Your task to perform on an android device: change text size in settings app Image 0: 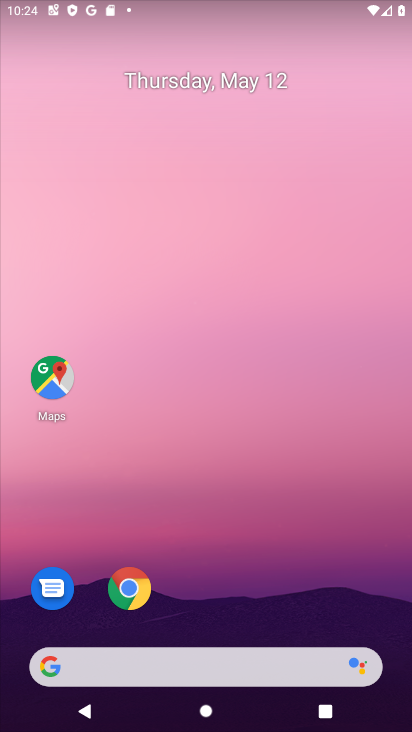
Step 0: click (188, 336)
Your task to perform on an android device: change text size in settings app Image 1: 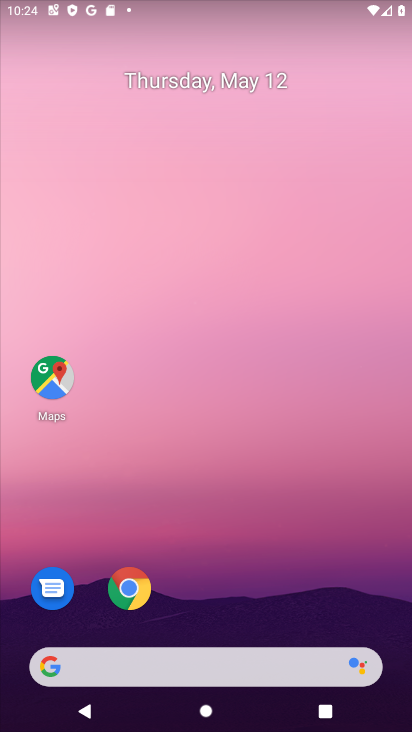
Step 1: click (214, 365)
Your task to perform on an android device: change text size in settings app Image 2: 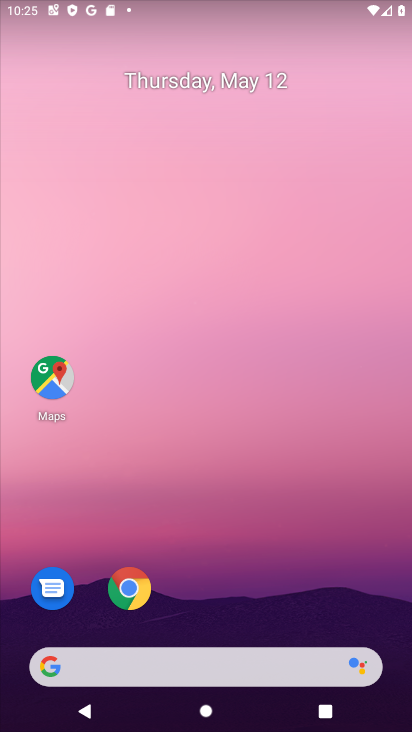
Step 2: drag from (213, 440) to (225, 147)
Your task to perform on an android device: change text size in settings app Image 3: 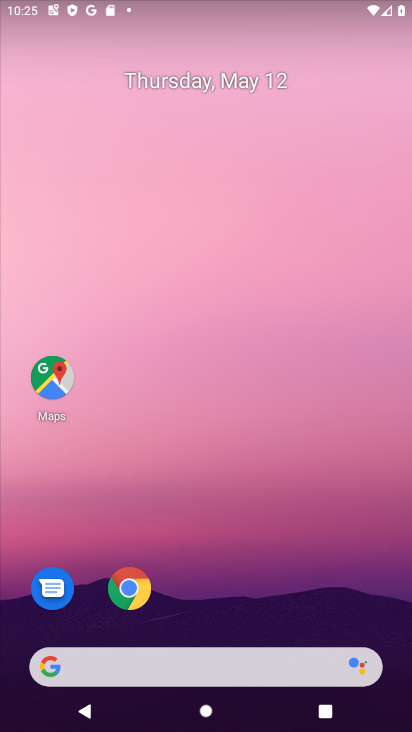
Step 3: drag from (181, 654) to (188, 88)
Your task to perform on an android device: change text size in settings app Image 4: 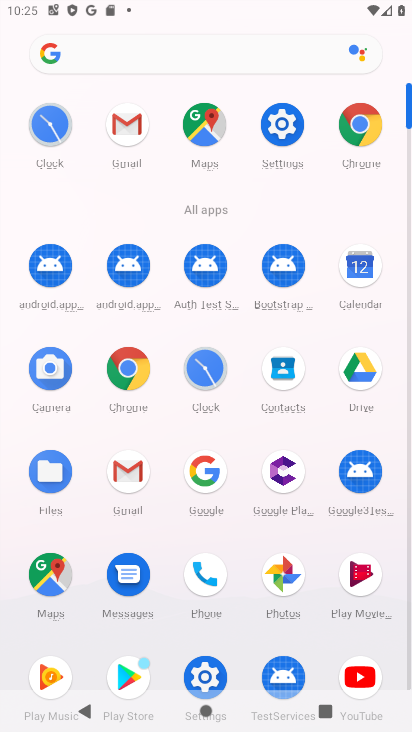
Step 4: click (277, 123)
Your task to perform on an android device: change text size in settings app Image 5: 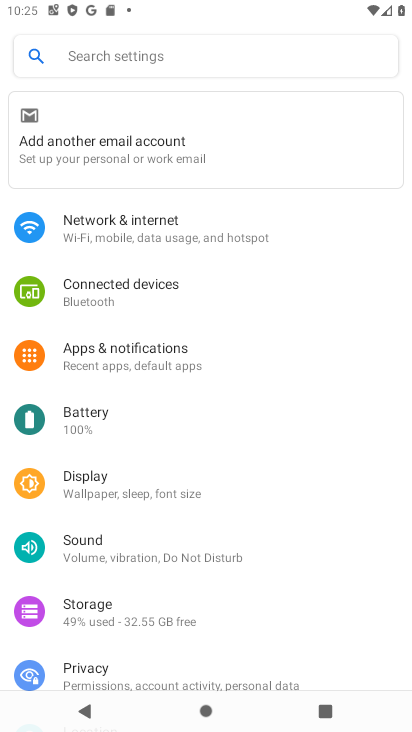
Step 5: drag from (117, 660) to (211, 156)
Your task to perform on an android device: change text size in settings app Image 6: 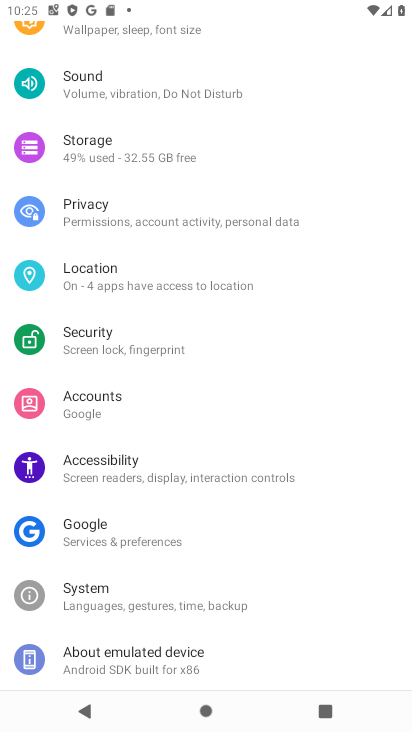
Step 6: drag from (162, 667) to (174, 343)
Your task to perform on an android device: change text size in settings app Image 7: 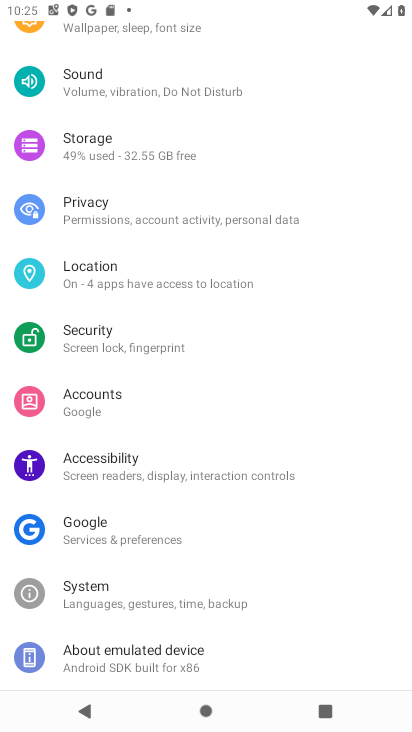
Step 7: click (122, 462)
Your task to perform on an android device: change text size in settings app Image 8: 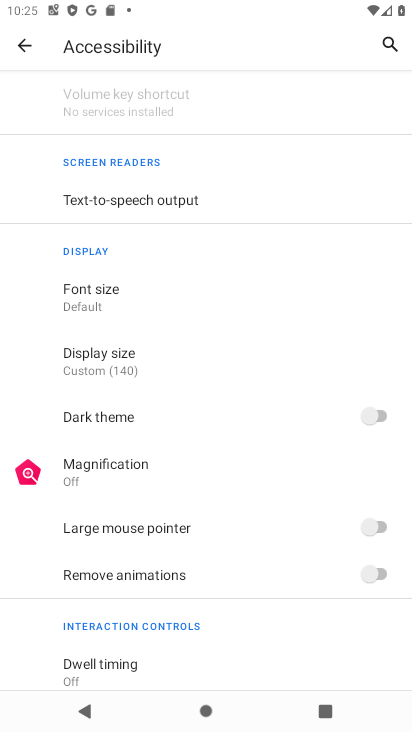
Step 8: click (79, 300)
Your task to perform on an android device: change text size in settings app Image 9: 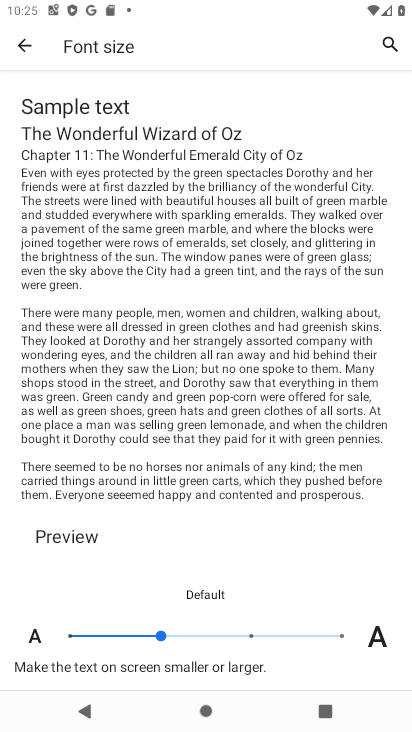
Step 9: click (245, 636)
Your task to perform on an android device: change text size in settings app Image 10: 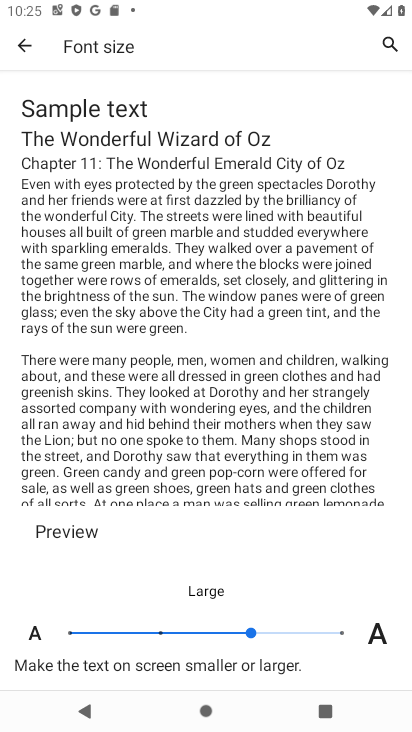
Step 10: task complete